Your task to perform on an android device: delete browsing data in the chrome app Image 0: 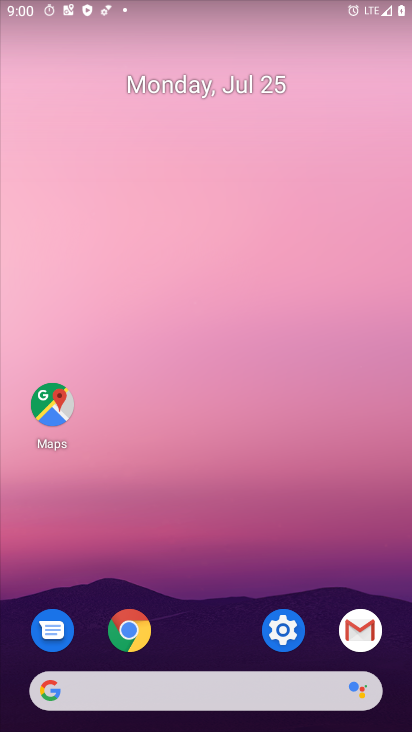
Step 0: click (130, 638)
Your task to perform on an android device: delete browsing data in the chrome app Image 1: 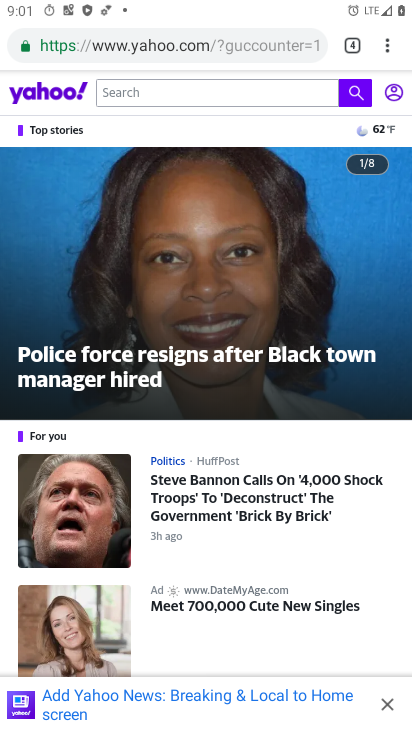
Step 1: click (389, 41)
Your task to perform on an android device: delete browsing data in the chrome app Image 2: 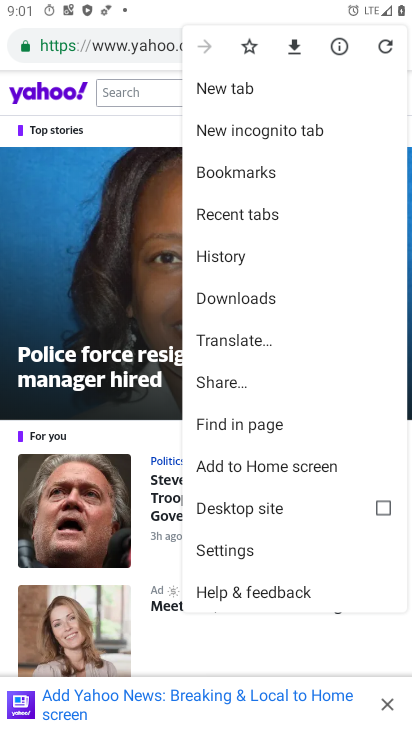
Step 2: click (222, 262)
Your task to perform on an android device: delete browsing data in the chrome app Image 3: 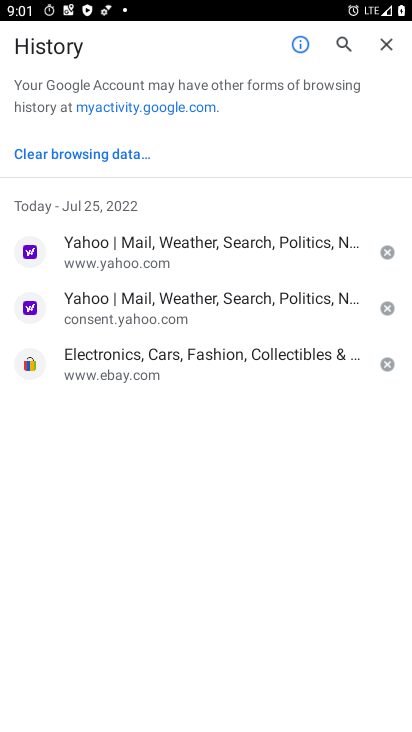
Step 3: click (87, 154)
Your task to perform on an android device: delete browsing data in the chrome app Image 4: 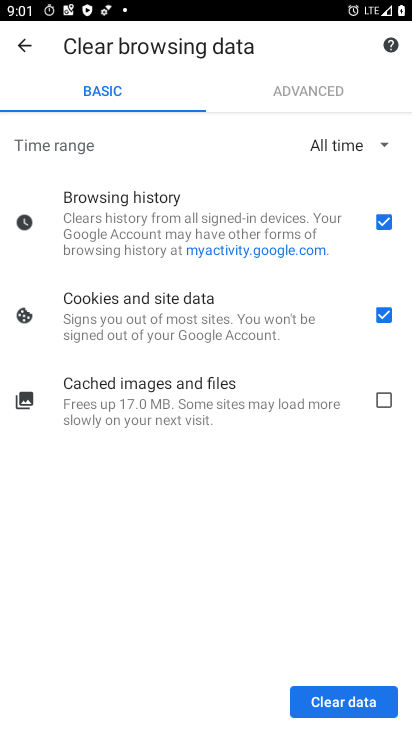
Step 4: click (357, 706)
Your task to perform on an android device: delete browsing data in the chrome app Image 5: 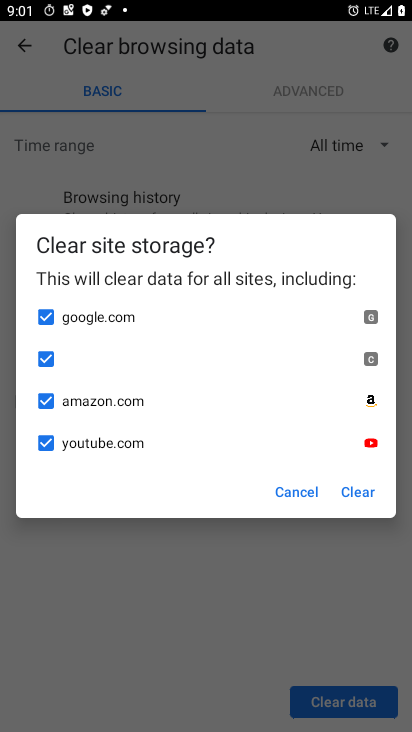
Step 5: click (365, 490)
Your task to perform on an android device: delete browsing data in the chrome app Image 6: 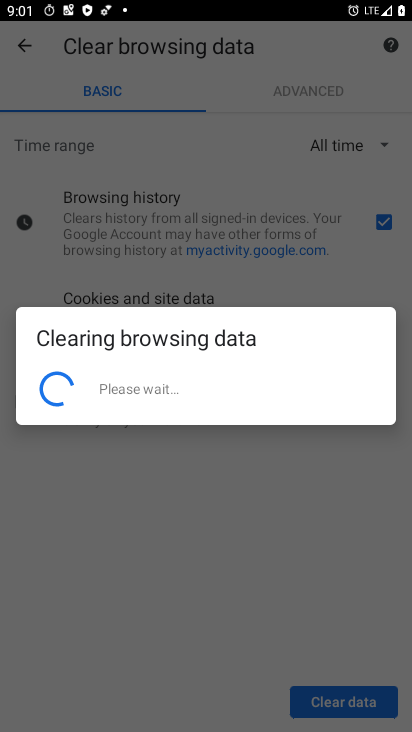
Step 6: task complete